Your task to perform on an android device: Go to privacy settings Image 0: 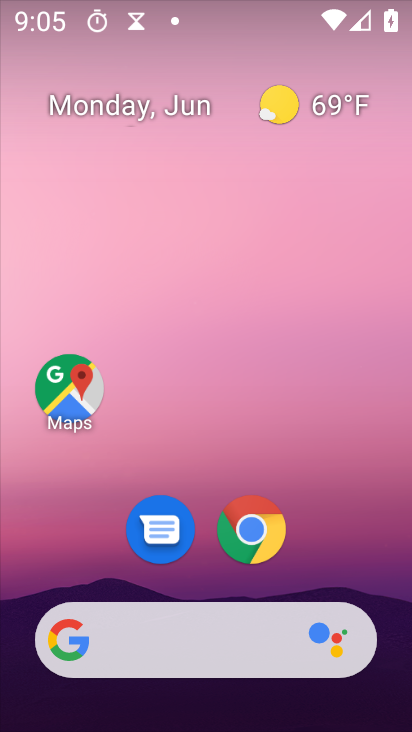
Step 0: click (248, 533)
Your task to perform on an android device: Go to privacy settings Image 1: 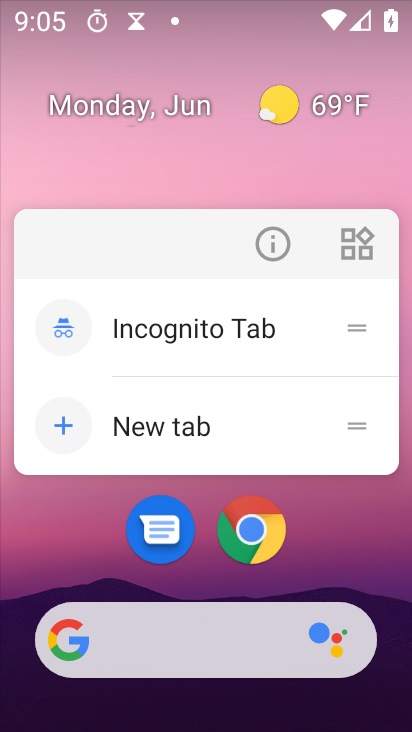
Step 1: click (245, 526)
Your task to perform on an android device: Go to privacy settings Image 2: 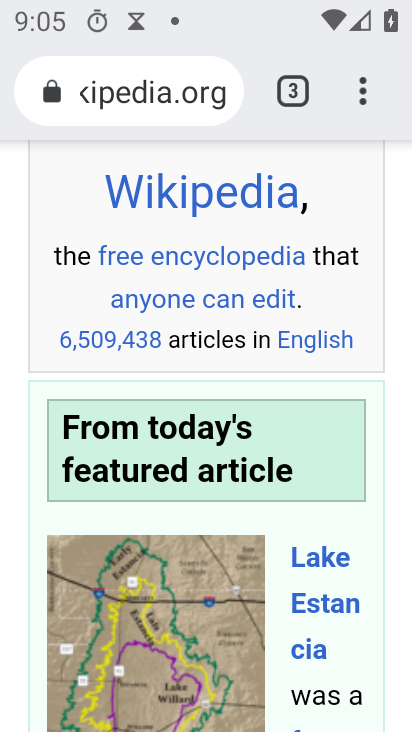
Step 2: click (354, 89)
Your task to perform on an android device: Go to privacy settings Image 3: 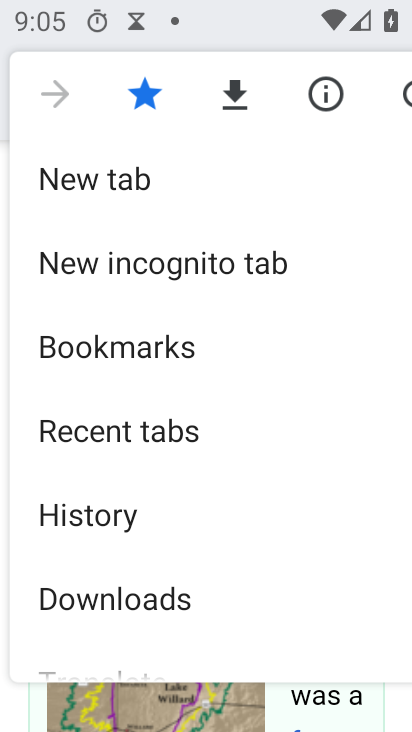
Step 3: press home button
Your task to perform on an android device: Go to privacy settings Image 4: 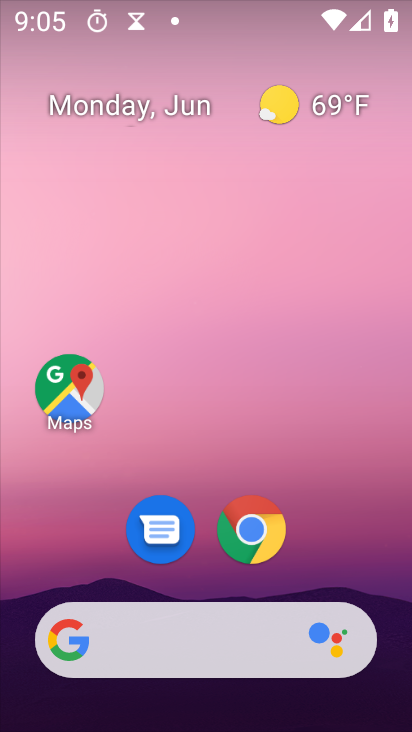
Step 4: drag from (323, 505) to (313, 17)
Your task to perform on an android device: Go to privacy settings Image 5: 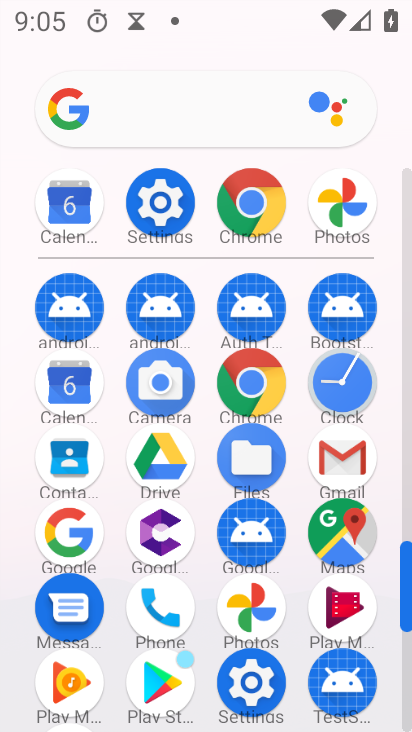
Step 5: click (158, 213)
Your task to perform on an android device: Go to privacy settings Image 6: 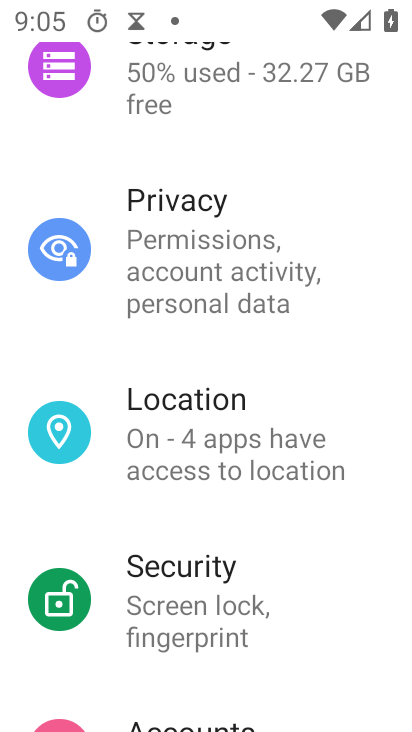
Step 6: click (286, 265)
Your task to perform on an android device: Go to privacy settings Image 7: 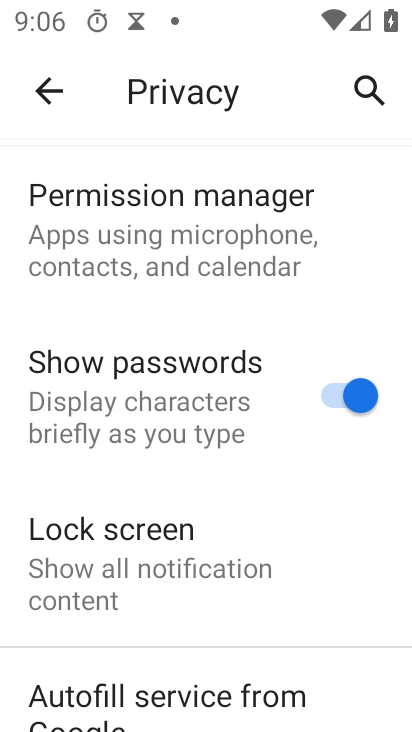
Step 7: task complete